Your task to perform on an android device: Go to settings Image 0: 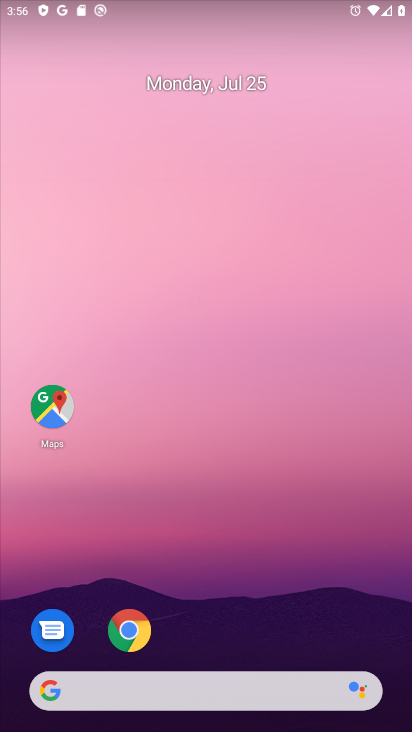
Step 0: drag from (184, 692) to (221, 140)
Your task to perform on an android device: Go to settings Image 1: 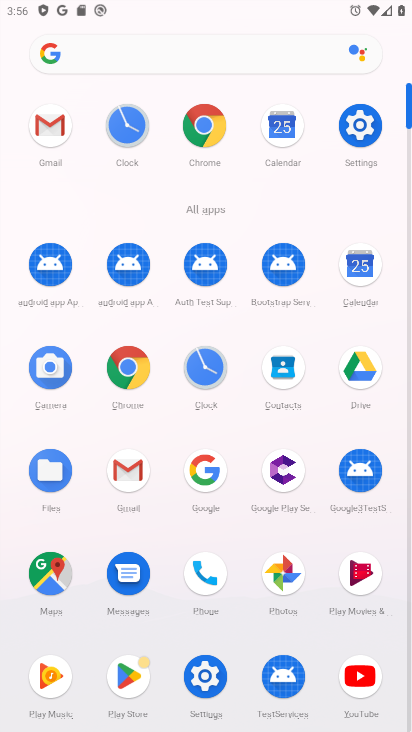
Step 1: click (359, 125)
Your task to perform on an android device: Go to settings Image 2: 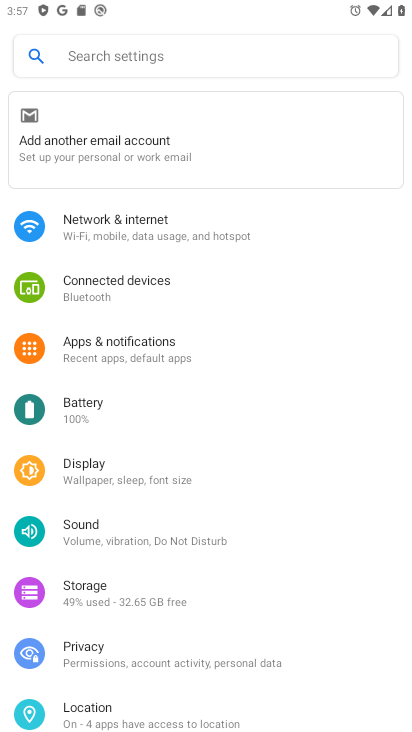
Step 2: task complete